Your task to perform on an android device: Open network settings Image 0: 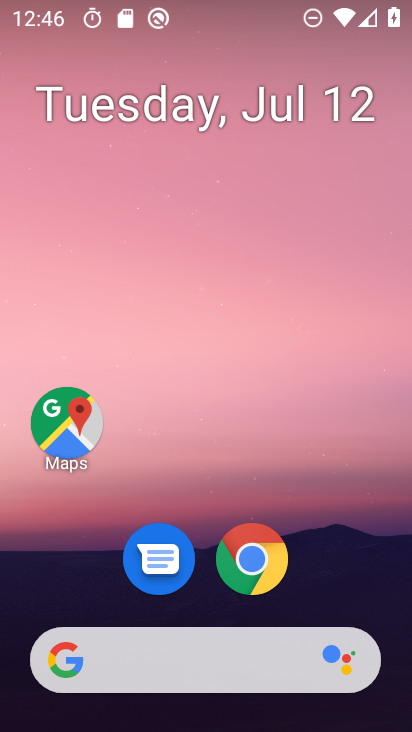
Step 0: drag from (199, 619) to (291, 5)
Your task to perform on an android device: Open network settings Image 1: 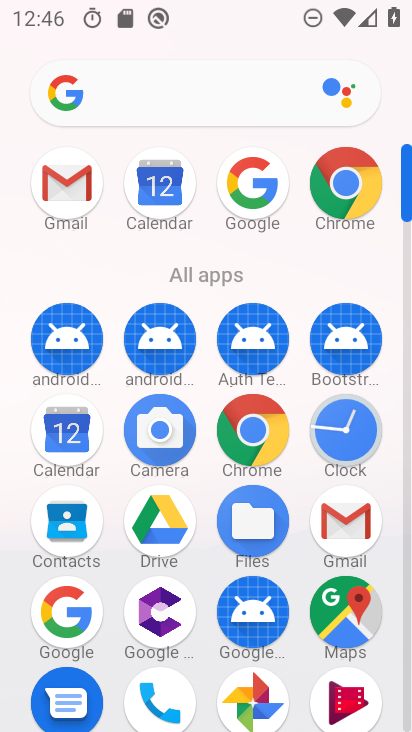
Step 1: drag from (200, 661) to (263, 91)
Your task to perform on an android device: Open network settings Image 2: 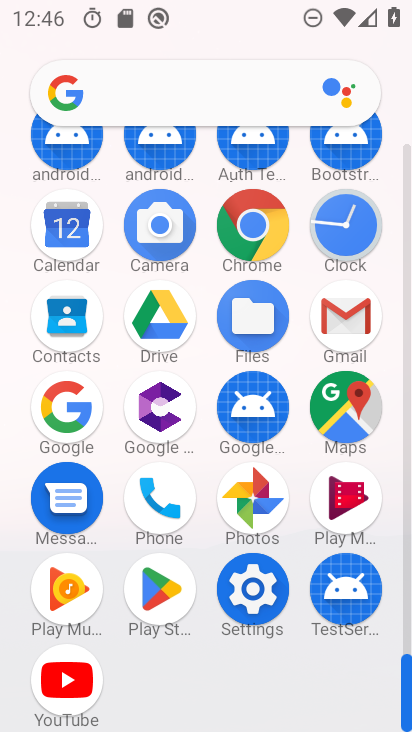
Step 2: click (233, 582)
Your task to perform on an android device: Open network settings Image 3: 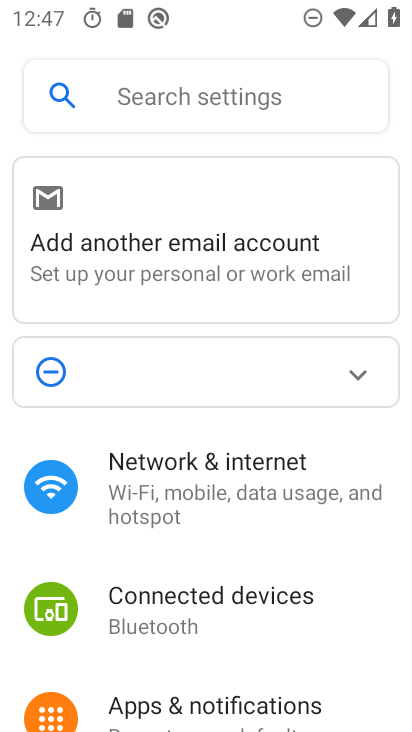
Step 3: click (245, 483)
Your task to perform on an android device: Open network settings Image 4: 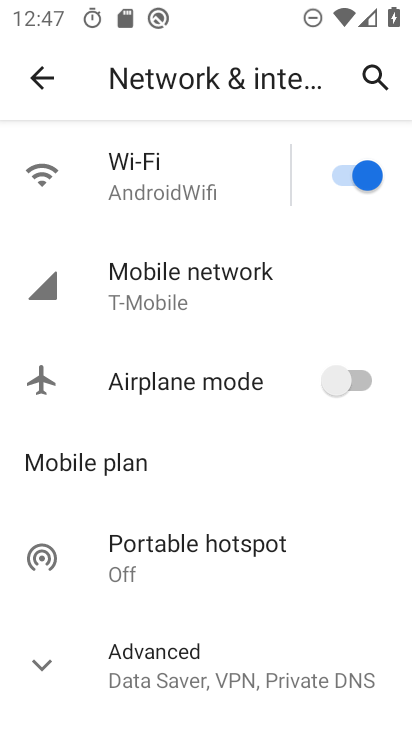
Step 4: task complete